Your task to perform on an android device: Open calendar and show me the second week of next month Image 0: 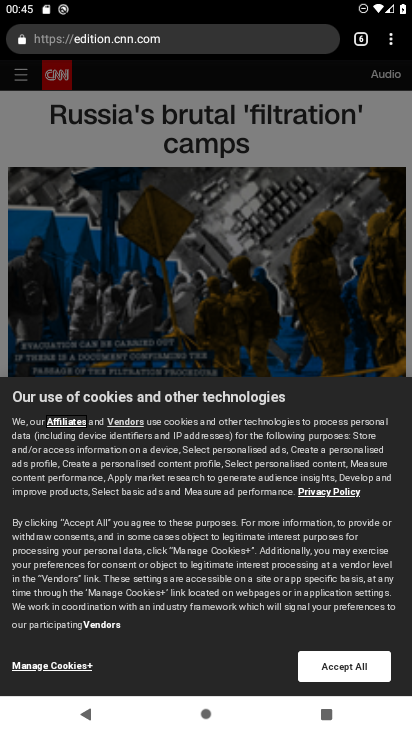
Step 0: press home button
Your task to perform on an android device: Open calendar and show me the second week of next month Image 1: 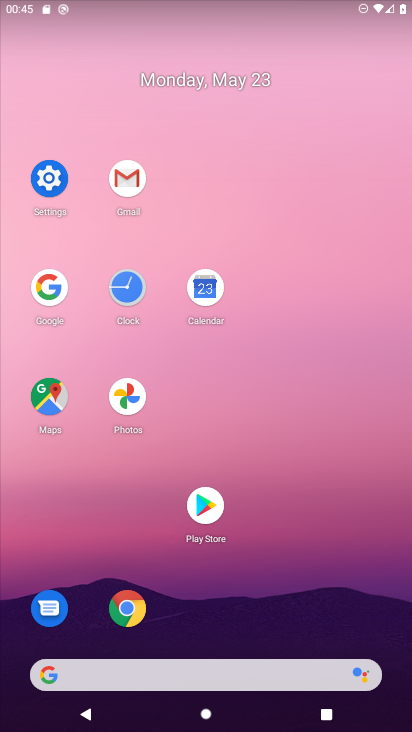
Step 1: click (220, 278)
Your task to perform on an android device: Open calendar and show me the second week of next month Image 2: 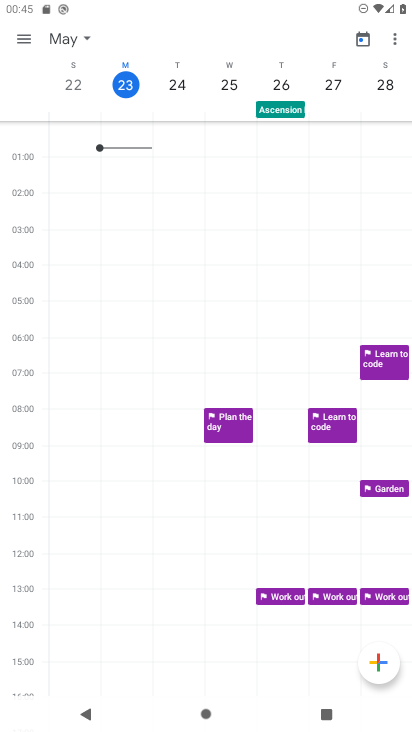
Step 2: click (61, 46)
Your task to perform on an android device: Open calendar and show me the second week of next month Image 3: 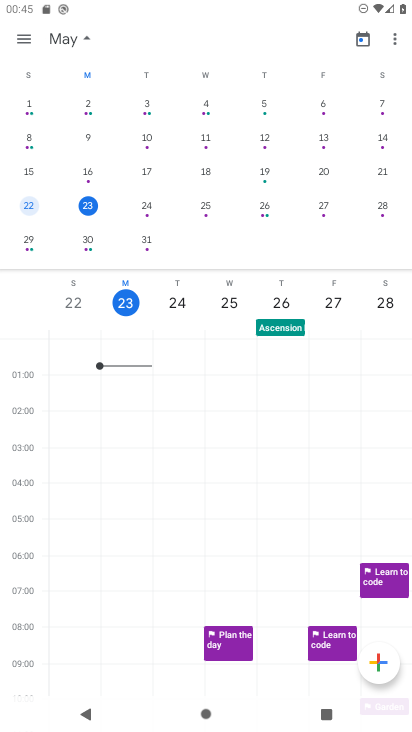
Step 3: drag from (356, 169) to (1, 54)
Your task to perform on an android device: Open calendar and show me the second week of next month Image 4: 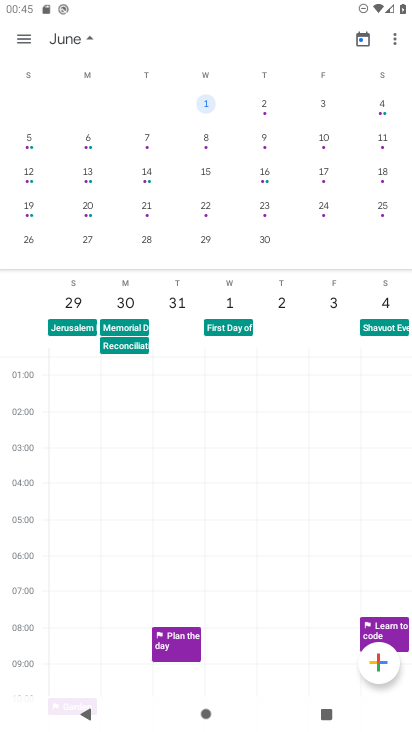
Step 4: click (26, 38)
Your task to perform on an android device: Open calendar and show me the second week of next month Image 5: 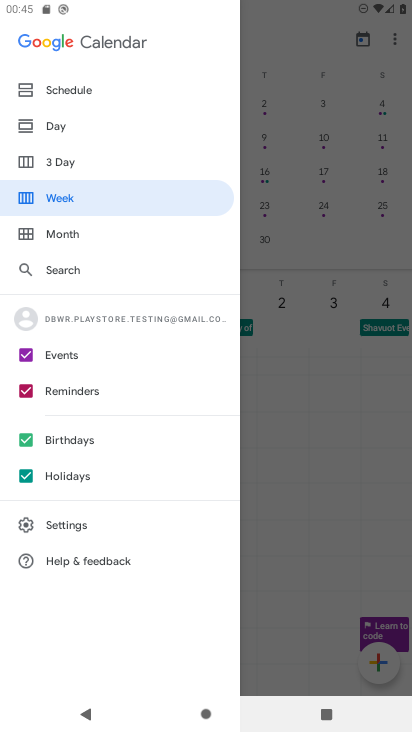
Step 5: click (75, 196)
Your task to perform on an android device: Open calendar and show me the second week of next month Image 6: 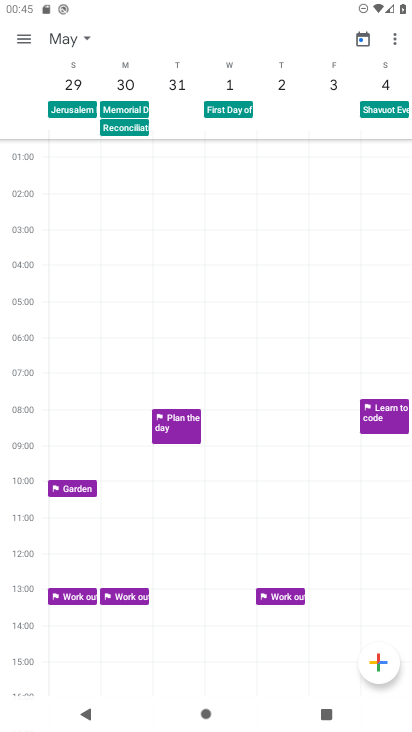
Step 6: task complete